Your task to perform on an android device: turn off translation in the chrome app Image 0: 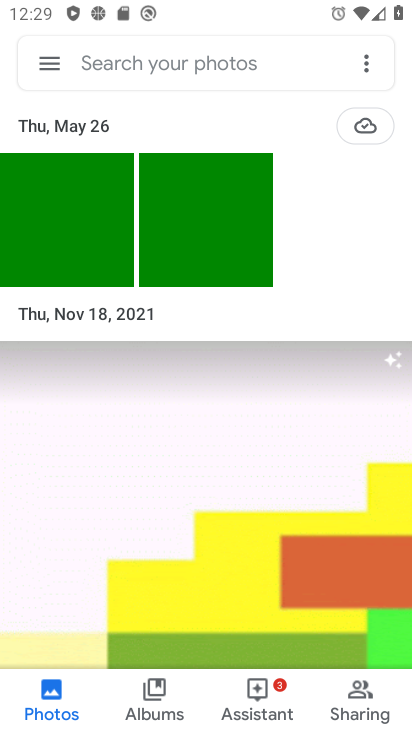
Step 0: press home button
Your task to perform on an android device: turn off translation in the chrome app Image 1: 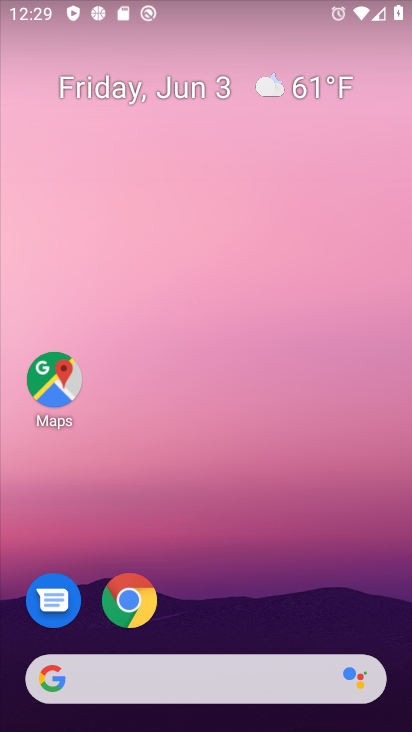
Step 1: drag from (339, 512) to (269, 213)
Your task to perform on an android device: turn off translation in the chrome app Image 2: 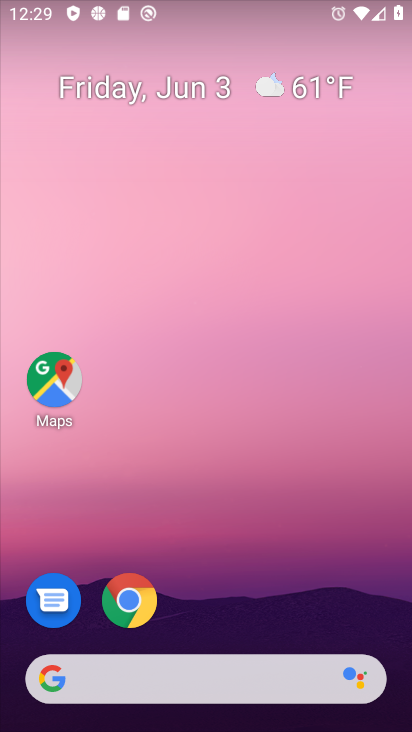
Step 2: click (265, 101)
Your task to perform on an android device: turn off translation in the chrome app Image 3: 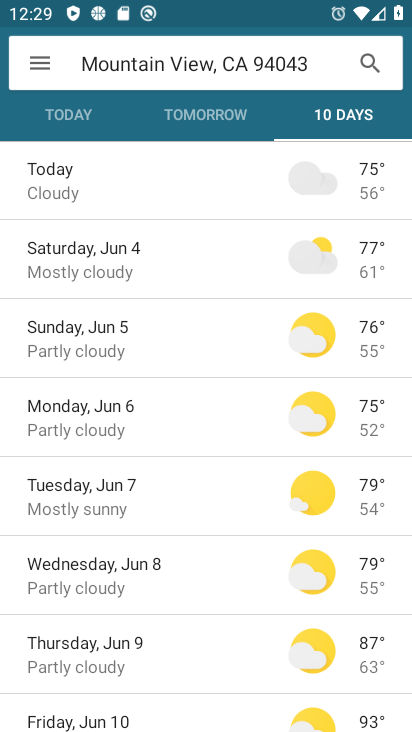
Step 3: press home button
Your task to perform on an android device: turn off translation in the chrome app Image 4: 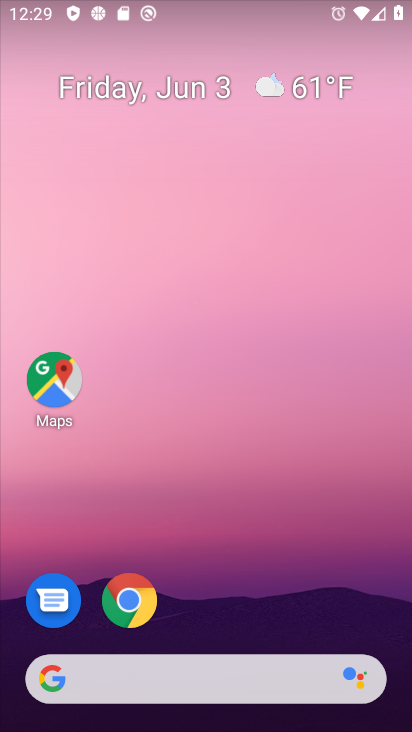
Step 4: click (126, 600)
Your task to perform on an android device: turn off translation in the chrome app Image 5: 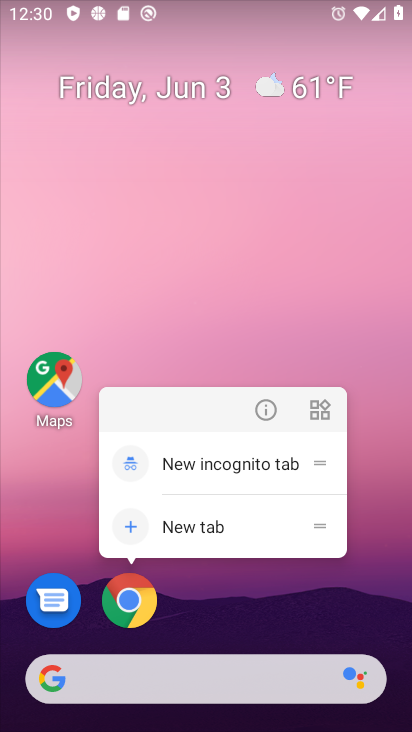
Step 5: click (128, 599)
Your task to perform on an android device: turn off translation in the chrome app Image 6: 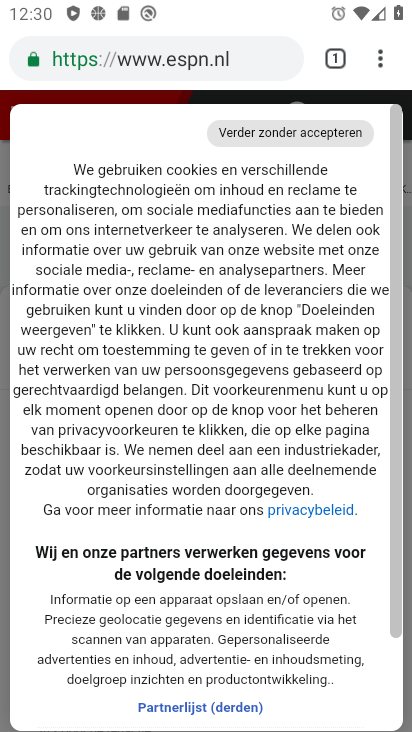
Step 6: drag from (387, 56) to (227, 631)
Your task to perform on an android device: turn off translation in the chrome app Image 7: 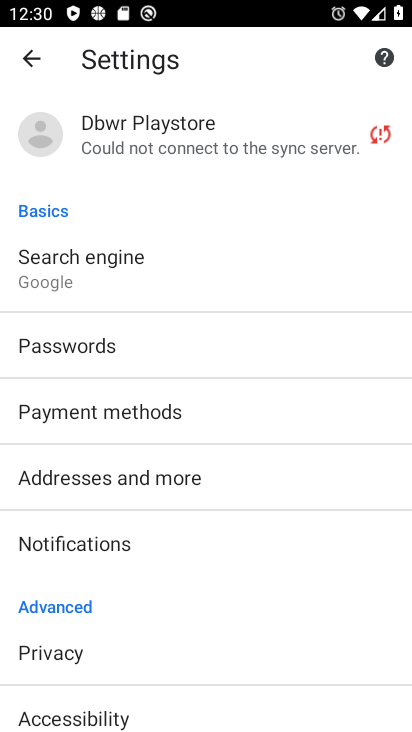
Step 7: drag from (191, 567) to (242, 144)
Your task to perform on an android device: turn off translation in the chrome app Image 8: 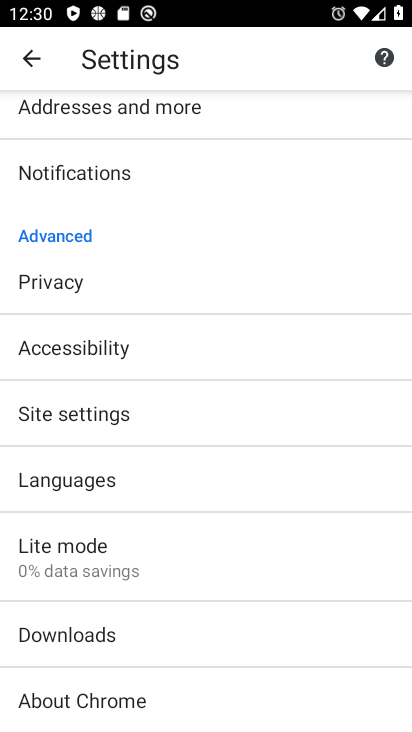
Step 8: click (69, 463)
Your task to perform on an android device: turn off translation in the chrome app Image 9: 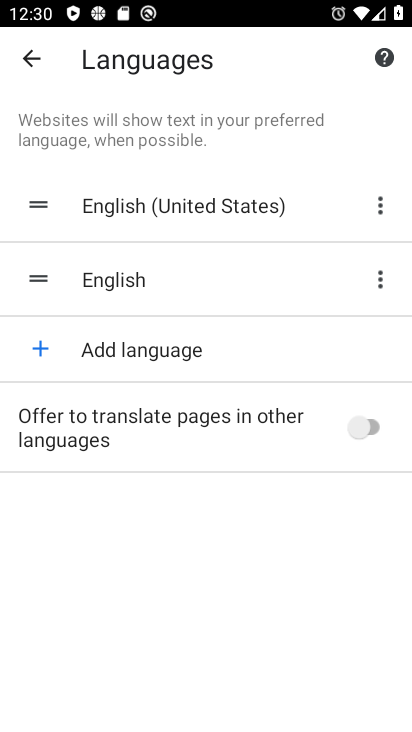
Step 9: task complete